Your task to perform on an android device: What's on my calendar tomorrow? Image 0: 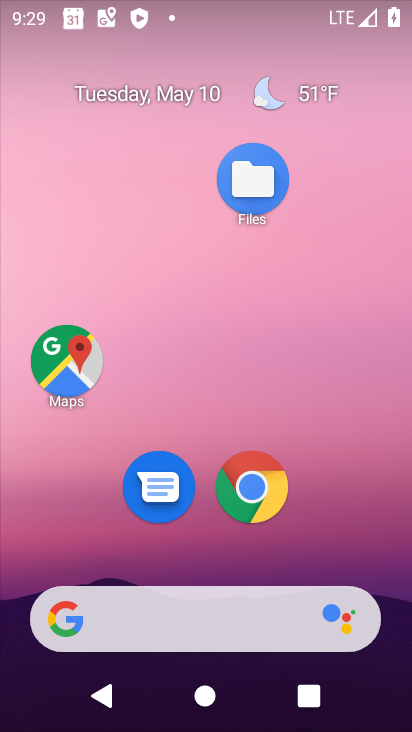
Step 0: drag from (220, 554) to (232, 83)
Your task to perform on an android device: What's on my calendar tomorrow? Image 1: 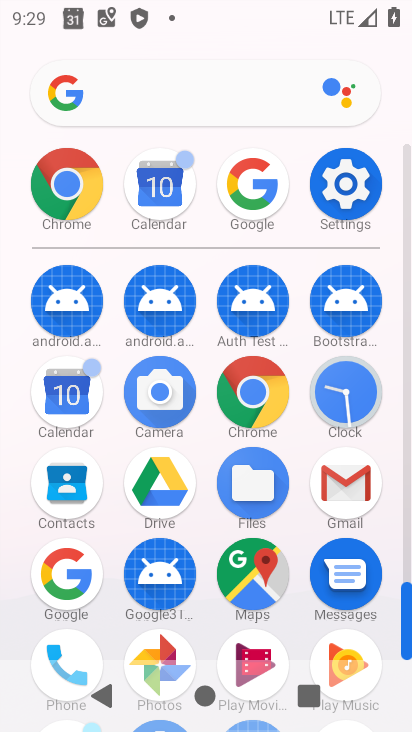
Step 1: click (66, 395)
Your task to perform on an android device: What's on my calendar tomorrow? Image 2: 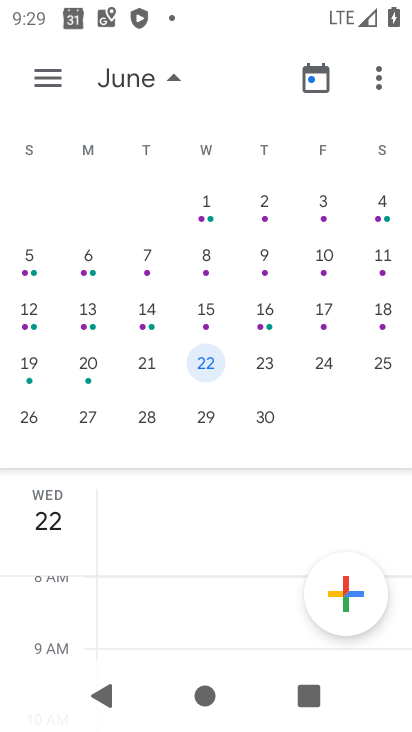
Step 2: drag from (90, 430) to (401, 408)
Your task to perform on an android device: What's on my calendar tomorrow? Image 3: 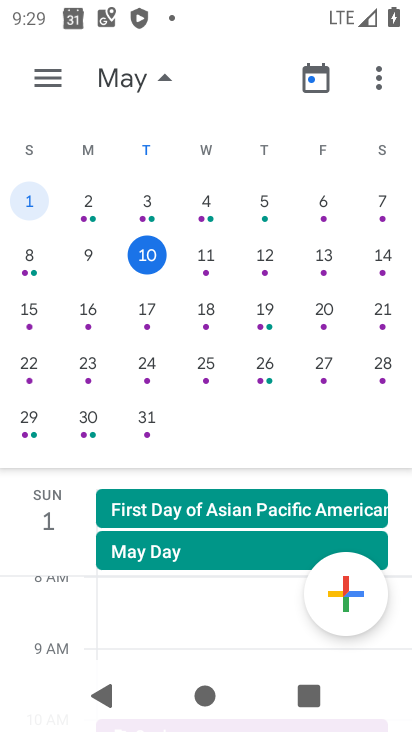
Step 3: click (202, 267)
Your task to perform on an android device: What's on my calendar tomorrow? Image 4: 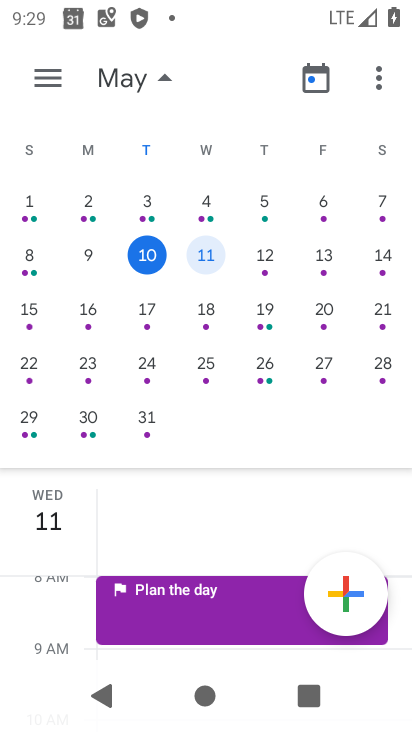
Step 4: task complete